Your task to perform on an android device: What's the weather going to be this weekend? Image 0: 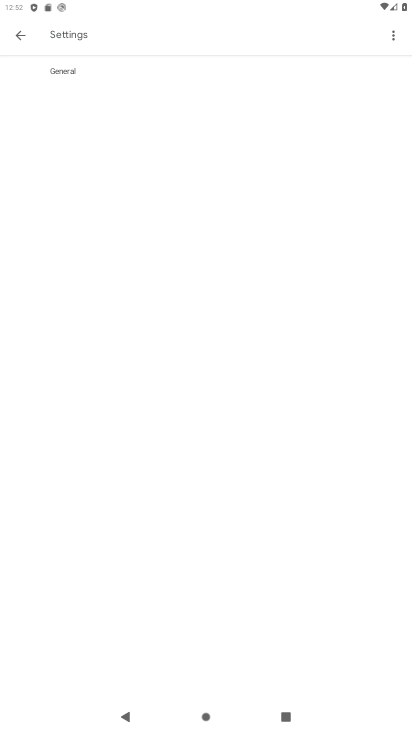
Step 0: press home button
Your task to perform on an android device: What's the weather going to be this weekend? Image 1: 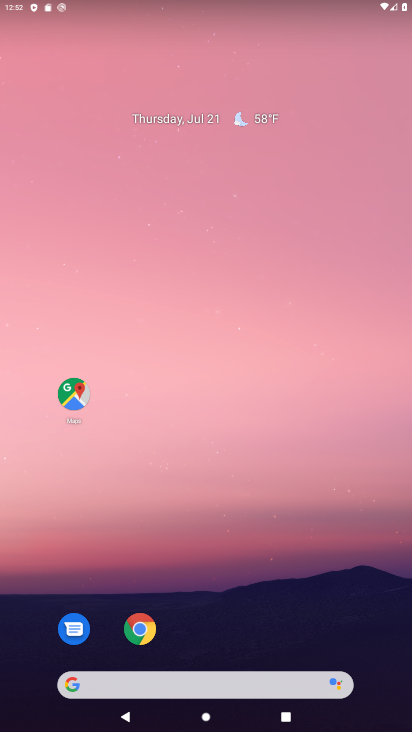
Step 1: drag from (149, 683) to (212, 109)
Your task to perform on an android device: What's the weather going to be this weekend? Image 2: 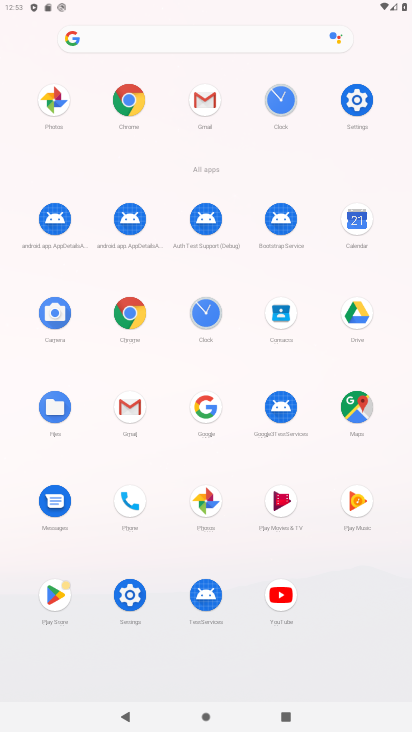
Step 2: click (203, 407)
Your task to perform on an android device: What's the weather going to be this weekend? Image 3: 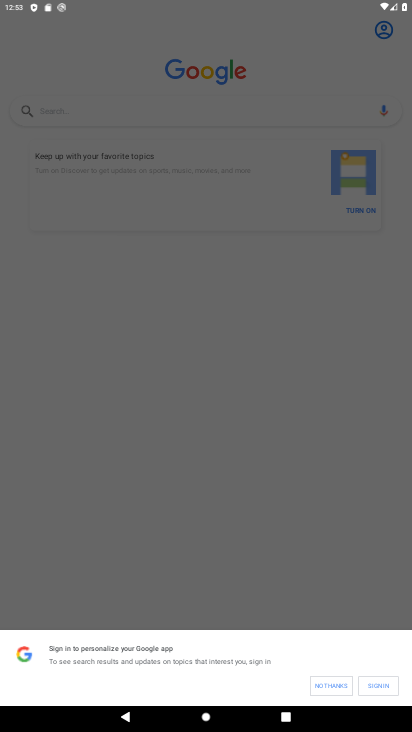
Step 3: click (252, 122)
Your task to perform on an android device: What's the weather going to be this weekend? Image 4: 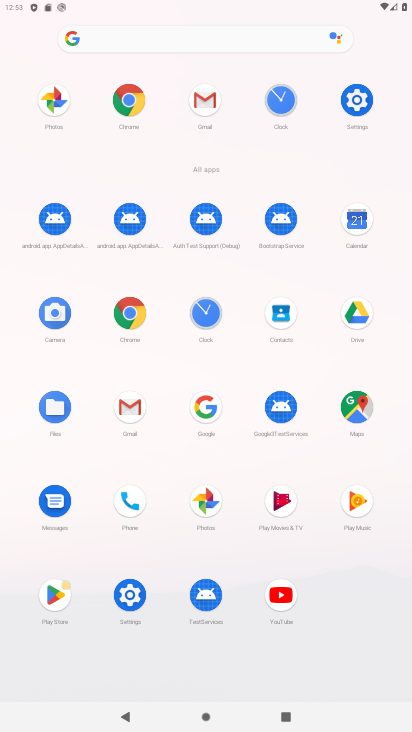
Step 4: click (208, 407)
Your task to perform on an android device: What's the weather going to be this weekend? Image 5: 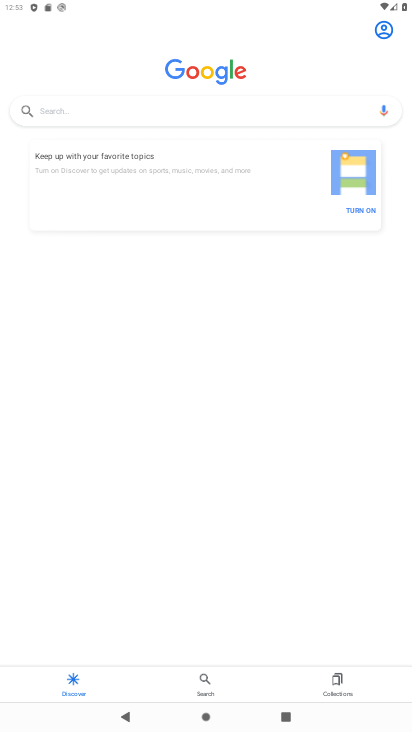
Step 5: click (207, 106)
Your task to perform on an android device: What's the weather going to be this weekend? Image 6: 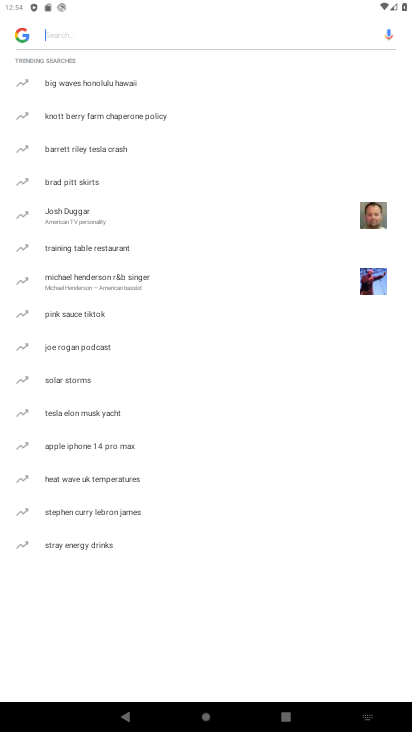
Step 6: type "What's the weather going to be this weekend?"
Your task to perform on an android device: What's the weather going to be this weekend? Image 7: 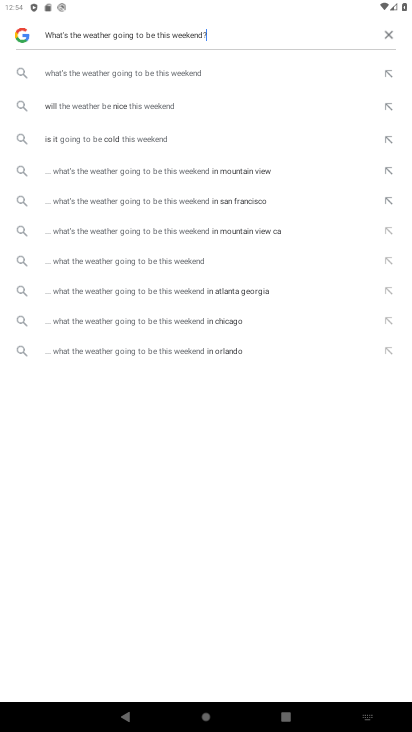
Step 7: click (145, 71)
Your task to perform on an android device: What's the weather going to be this weekend? Image 8: 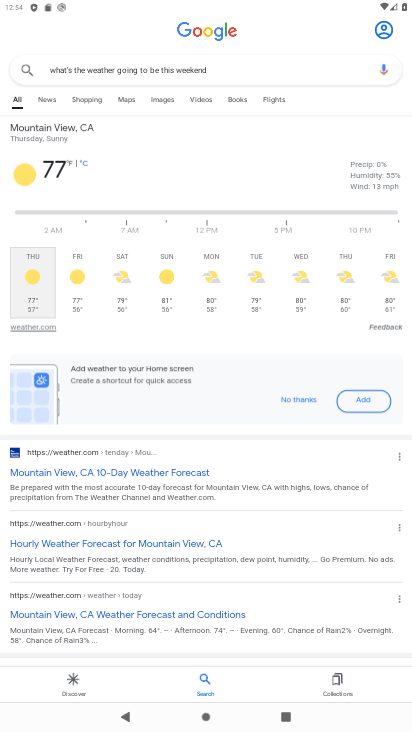
Step 8: click (132, 282)
Your task to perform on an android device: What's the weather going to be this weekend? Image 9: 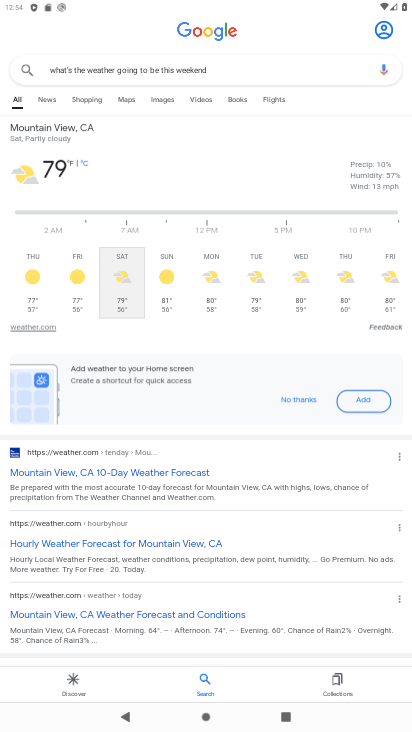
Step 9: task complete